Your task to perform on an android device: What is the news today? Image 0: 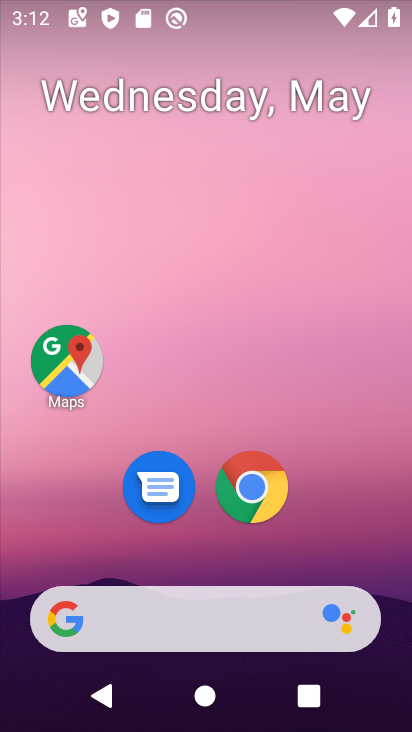
Step 0: drag from (332, 501) to (270, 38)
Your task to perform on an android device: What is the news today? Image 1: 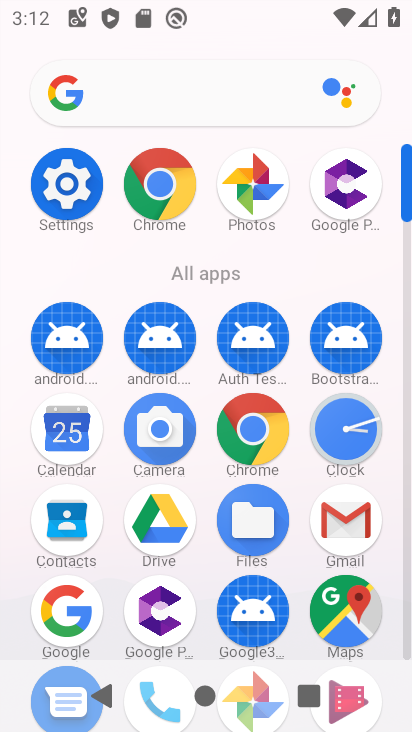
Step 1: drag from (9, 603) to (28, 278)
Your task to perform on an android device: What is the news today? Image 2: 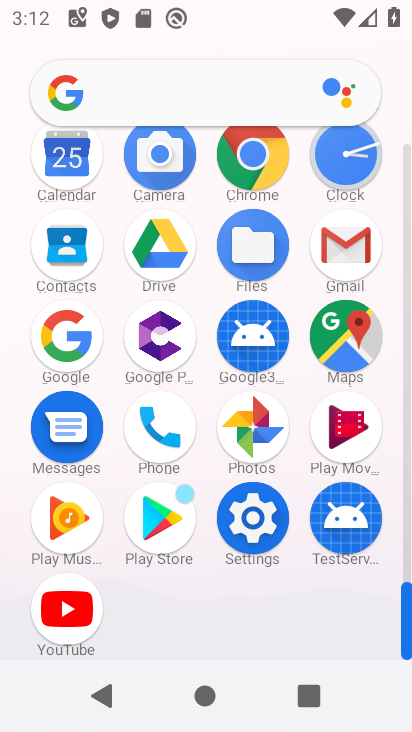
Step 2: click (252, 156)
Your task to perform on an android device: What is the news today? Image 3: 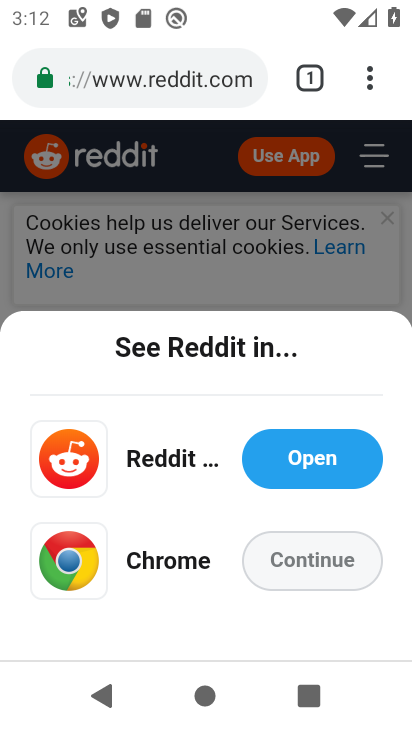
Step 3: click (167, 72)
Your task to perform on an android device: What is the news today? Image 4: 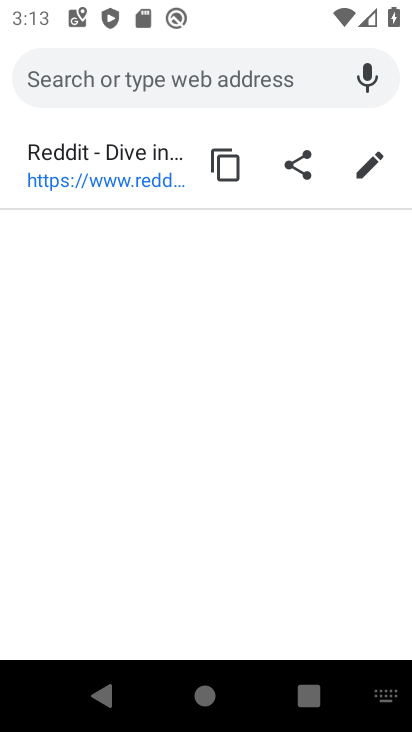
Step 4: type "What is the news today?"
Your task to perform on an android device: What is the news today? Image 5: 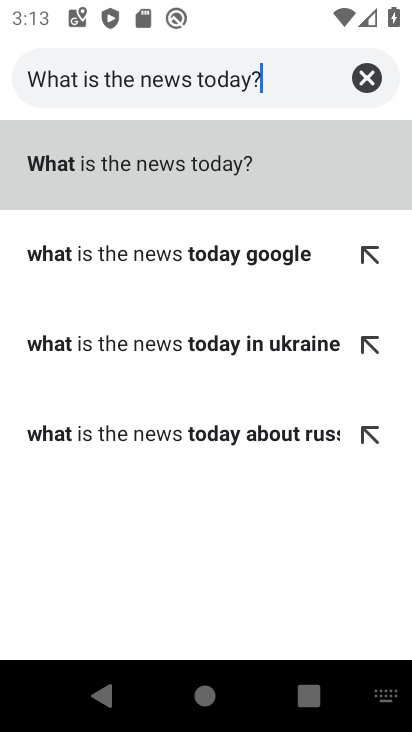
Step 5: type ""
Your task to perform on an android device: What is the news today? Image 6: 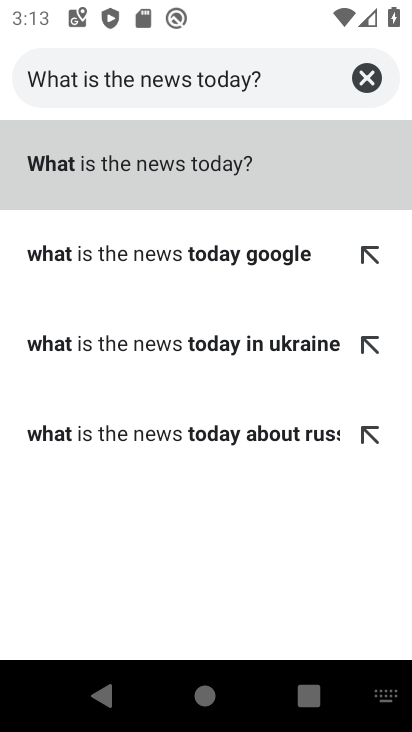
Step 6: click (181, 170)
Your task to perform on an android device: What is the news today? Image 7: 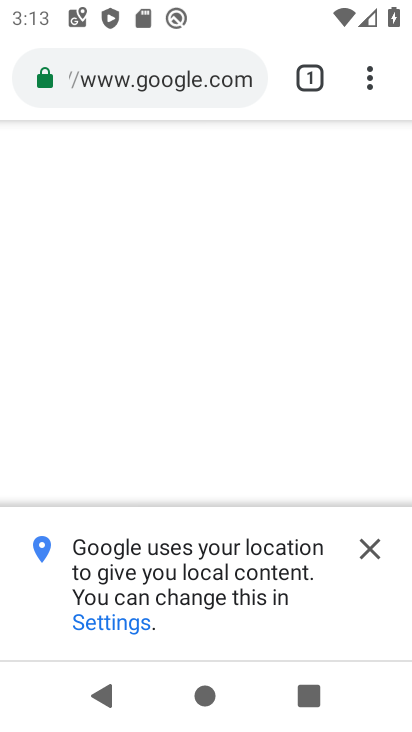
Step 7: click (367, 552)
Your task to perform on an android device: What is the news today? Image 8: 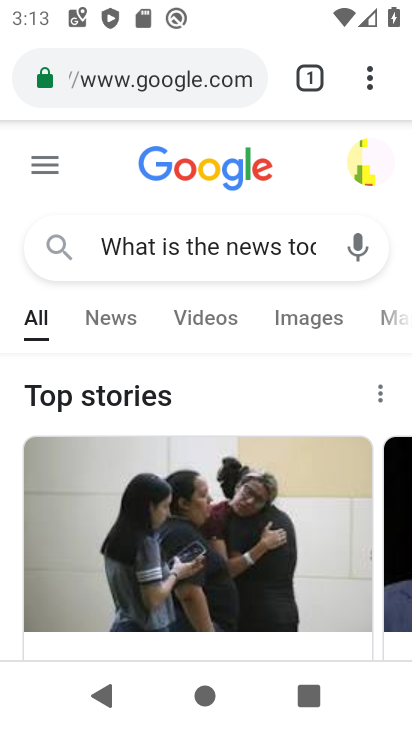
Step 8: task complete